Your task to perform on an android device: set default search engine in the chrome app Image 0: 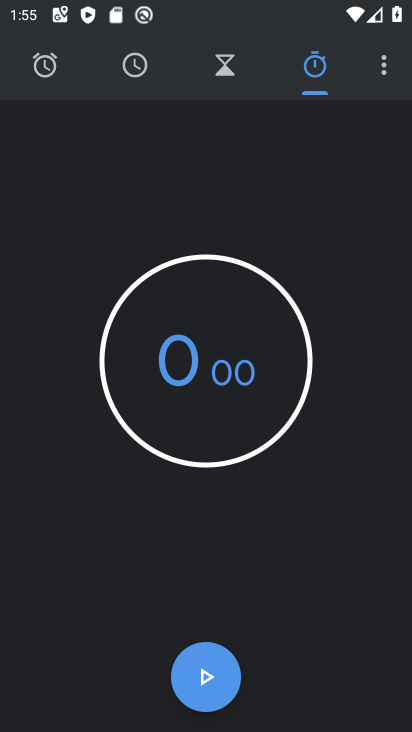
Step 0: press home button
Your task to perform on an android device: set default search engine in the chrome app Image 1: 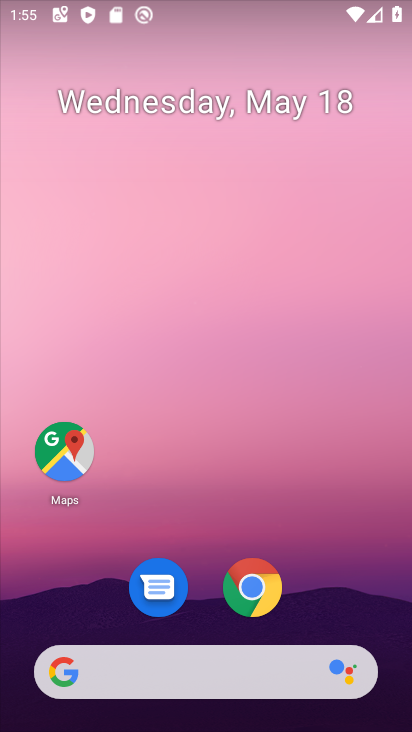
Step 1: click (257, 591)
Your task to perform on an android device: set default search engine in the chrome app Image 2: 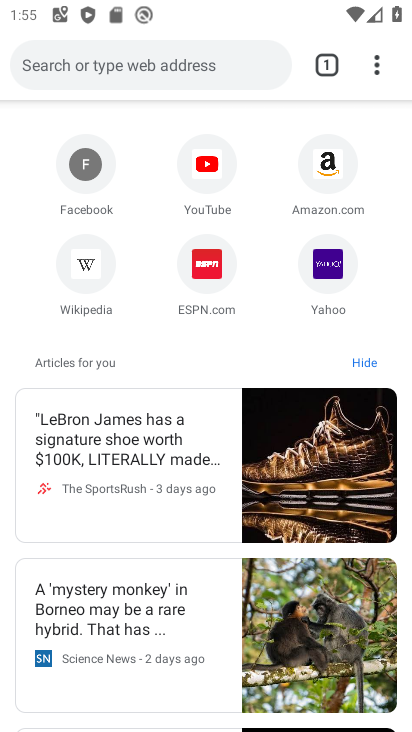
Step 2: click (378, 69)
Your task to perform on an android device: set default search engine in the chrome app Image 3: 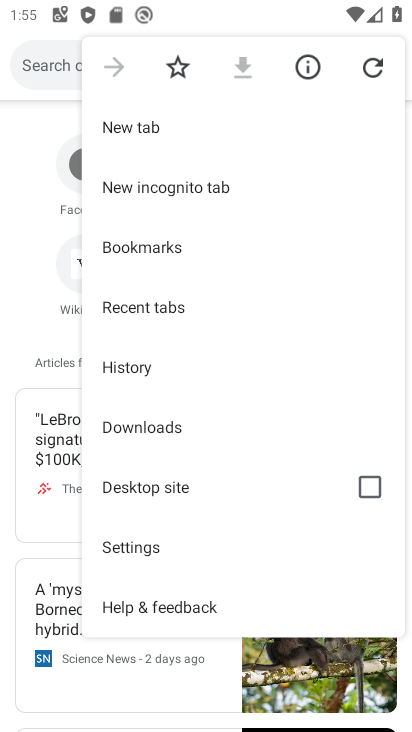
Step 3: click (118, 549)
Your task to perform on an android device: set default search engine in the chrome app Image 4: 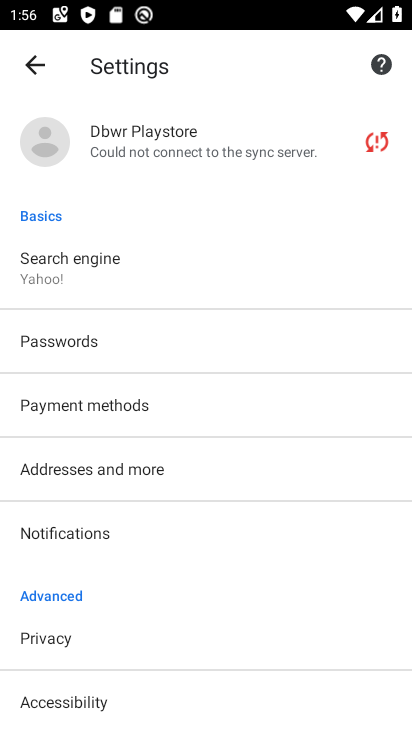
Step 4: click (74, 258)
Your task to perform on an android device: set default search engine in the chrome app Image 5: 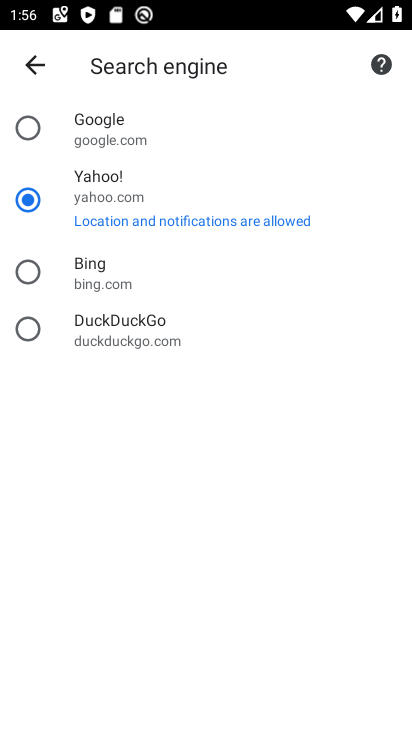
Step 5: click (37, 272)
Your task to perform on an android device: set default search engine in the chrome app Image 6: 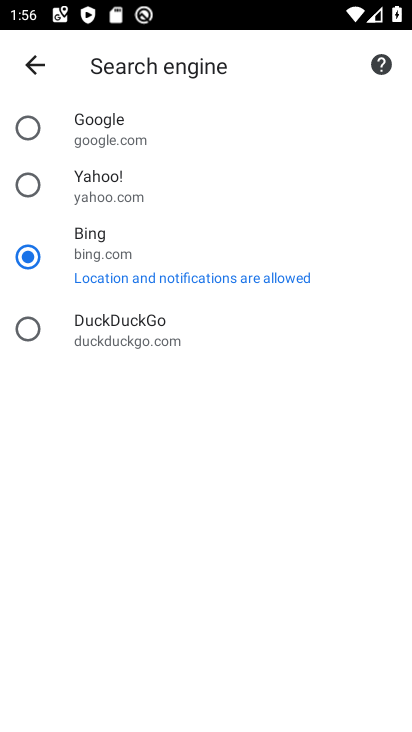
Step 6: task complete